Your task to perform on an android device: What is the recent news? Image 0: 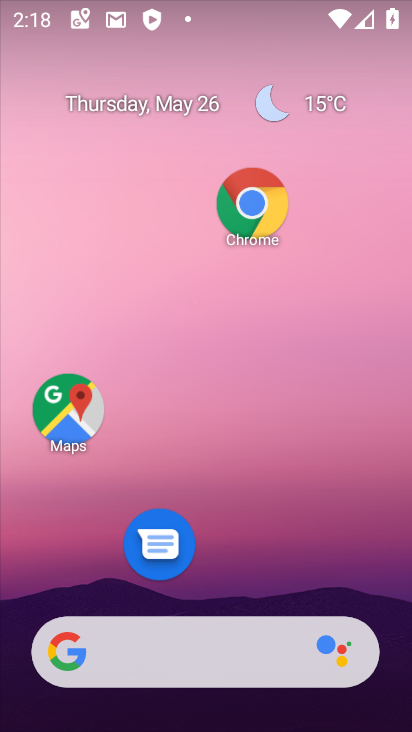
Step 0: click (255, 649)
Your task to perform on an android device: What is the recent news? Image 1: 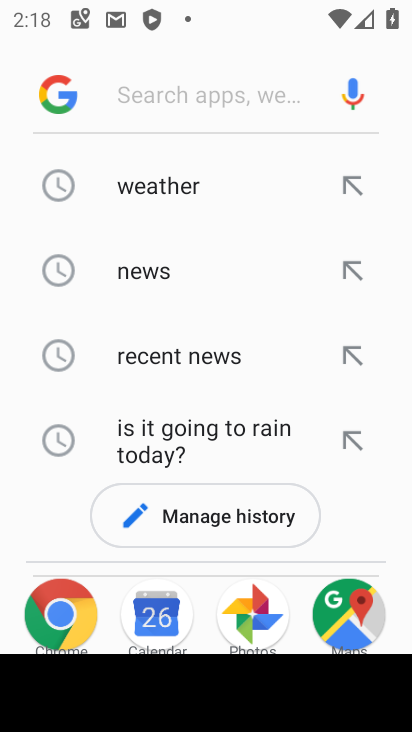
Step 1: click (248, 361)
Your task to perform on an android device: What is the recent news? Image 2: 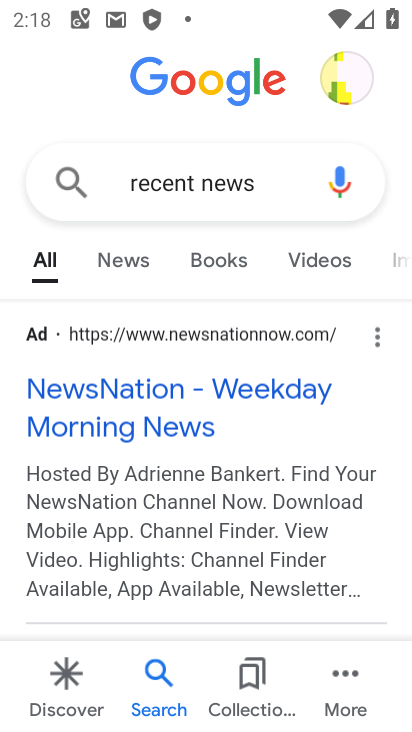
Step 2: task complete